Your task to perform on an android device: change the clock display to analog Image 0: 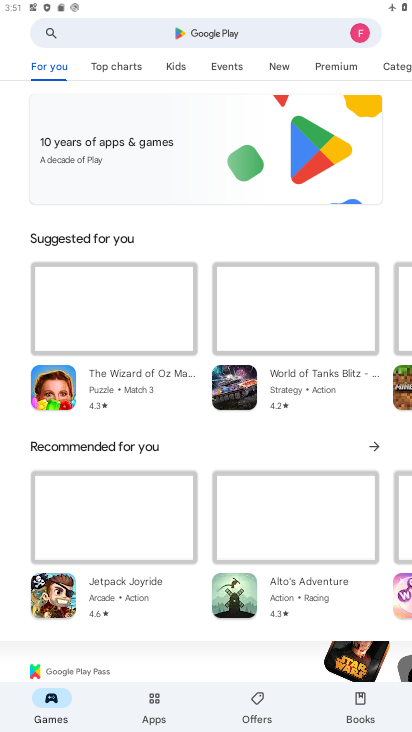
Step 0: press home button
Your task to perform on an android device: change the clock display to analog Image 1: 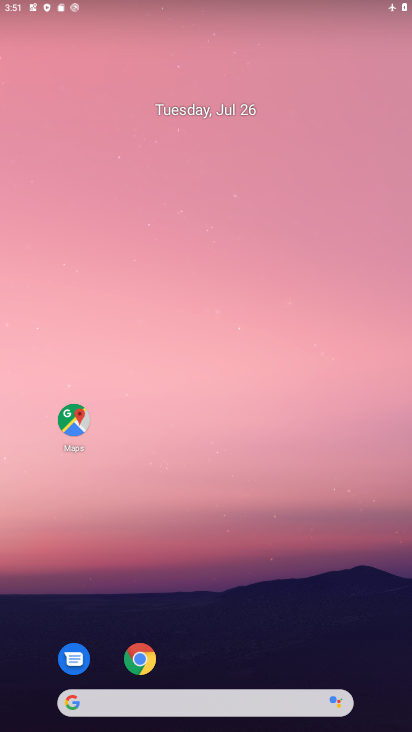
Step 1: drag from (262, 529) to (304, 0)
Your task to perform on an android device: change the clock display to analog Image 2: 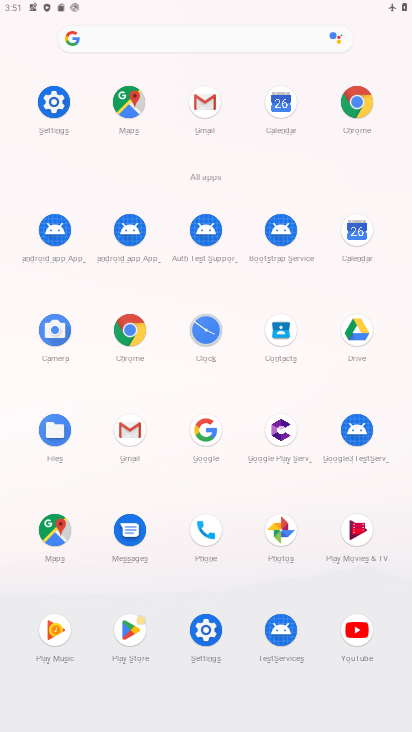
Step 2: click (206, 331)
Your task to perform on an android device: change the clock display to analog Image 3: 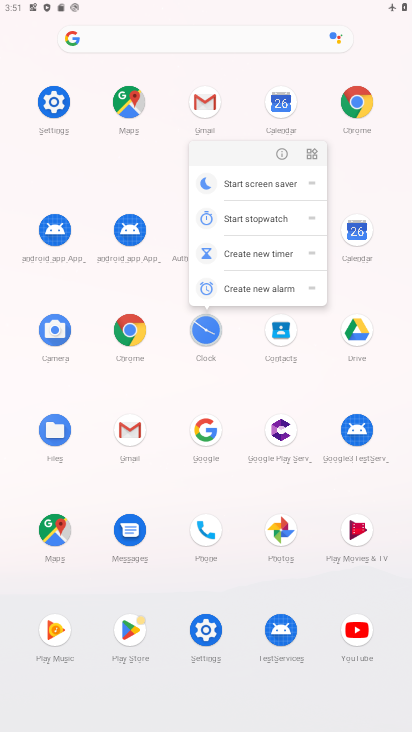
Step 3: click (206, 330)
Your task to perform on an android device: change the clock display to analog Image 4: 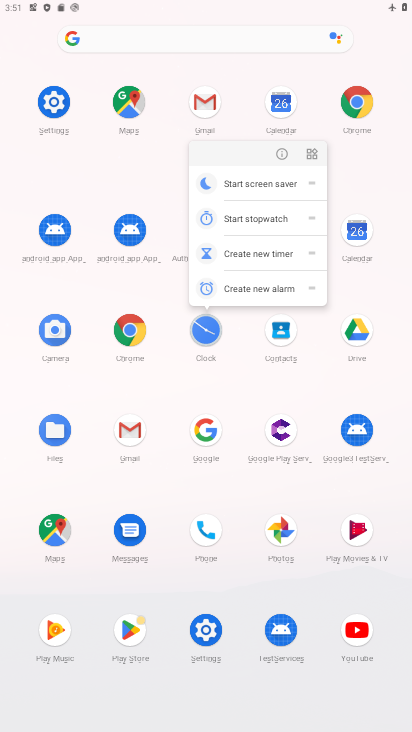
Step 4: click (210, 329)
Your task to perform on an android device: change the clock display to analog Image 5: 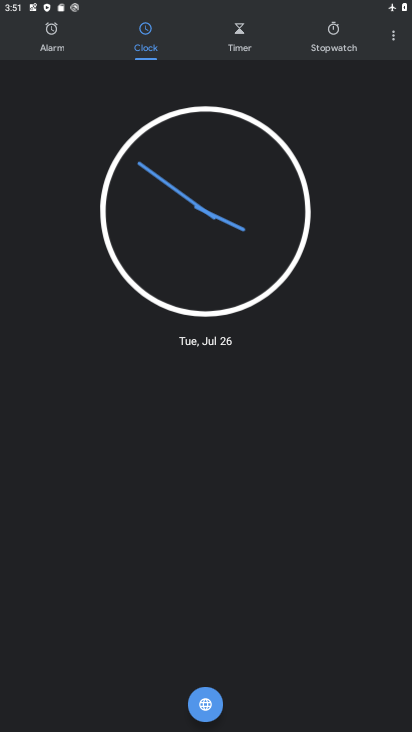
Step 5: click (402, 35)
Your task to perform on an android device: change the clock display to analog Image 6: 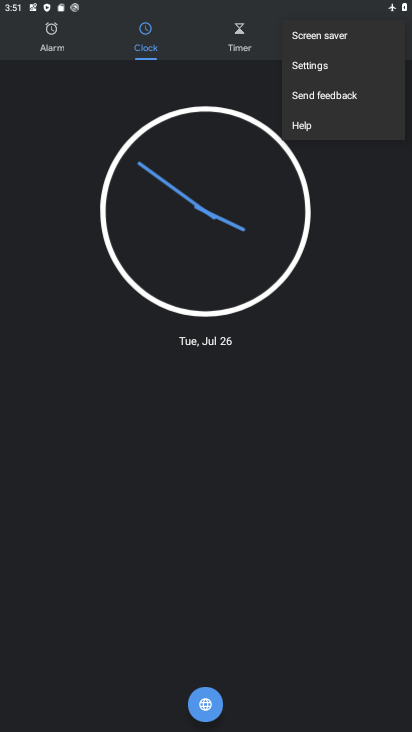
Step 6: click (314, 65)
Your task to perform on an android device: change the clock display to analog Image 7: 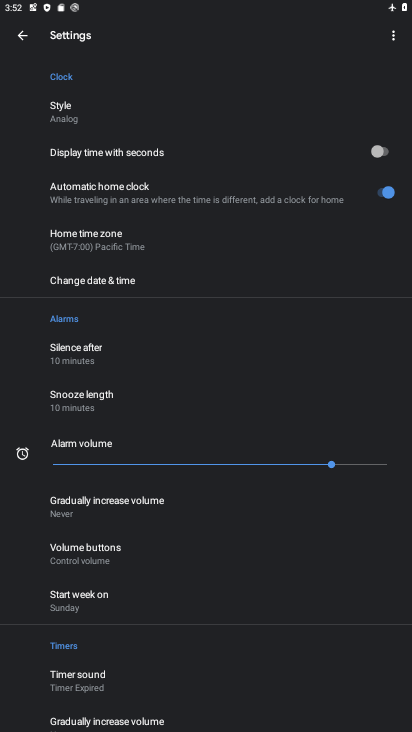
Step 7: click (74, 115)
Your task to perform on an android device: change the clock display to analog Image 8: 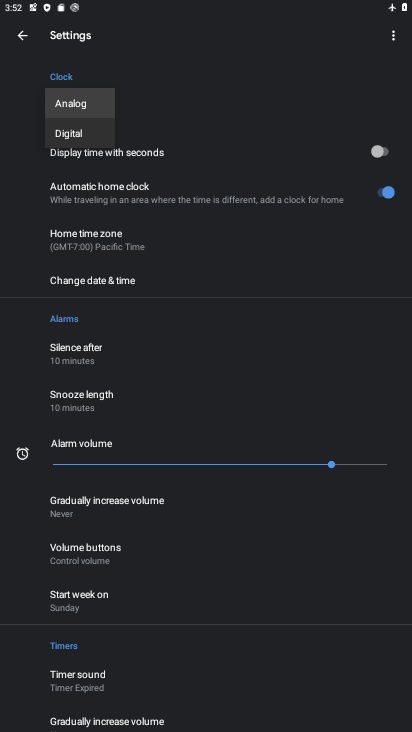
Step 8: click (77, 106)
Your task to perform on an android device: change the clock display to analog Image 9: 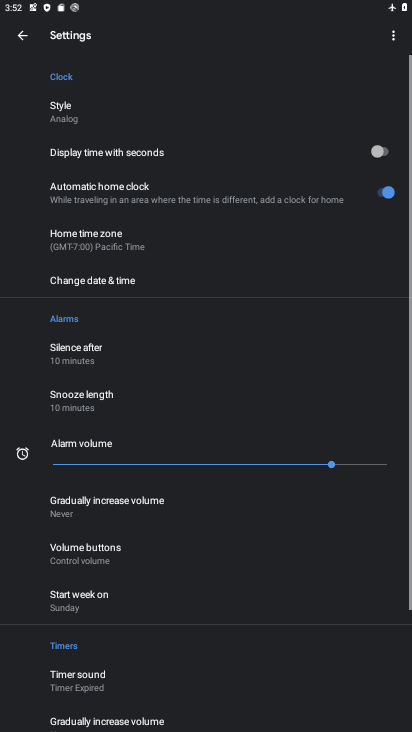
Step 9: task complete